Your task to perform on an android device: Clear the cart on ebay. Search for jbl charge 4 on ebay, select the first entry, and add it to the cart. Image 0: 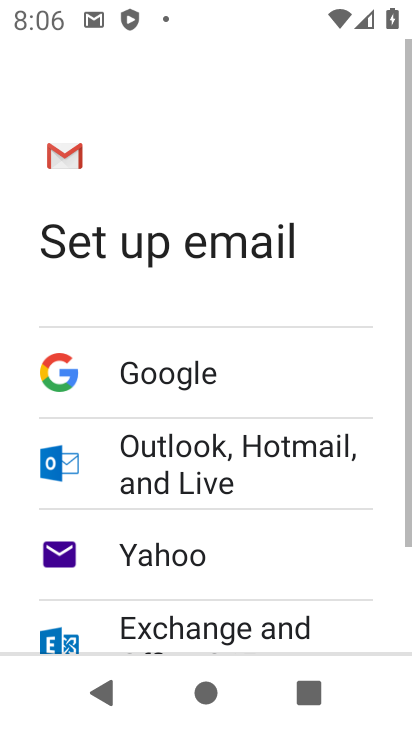
Step 0: task complete